Your task to perform on an android device: find photos in the google photos app Image 0: 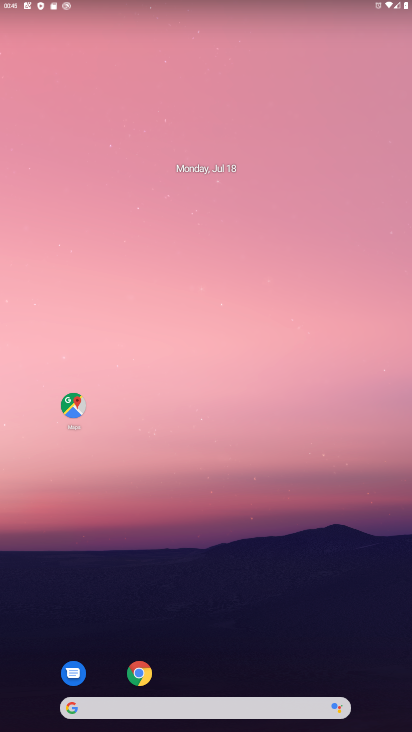
Step 0: drag from (251, 674) to (166, 48)
Your task to perform on an android device: find photos in the google photos app Image 1: 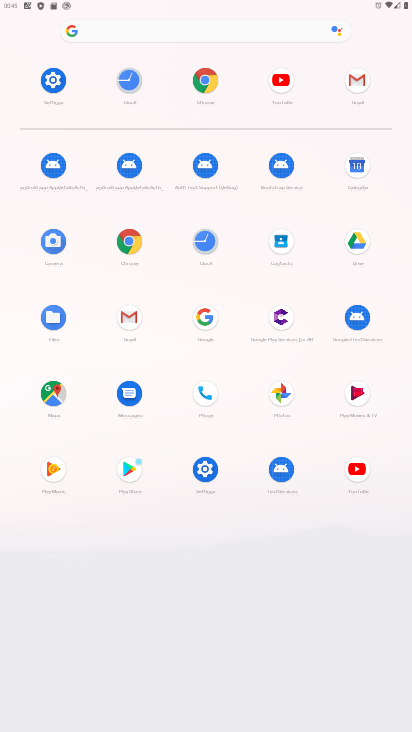
Step 1: click (300, 400)
Your task to perform on an android device: find photos in the google photos app Image 2: 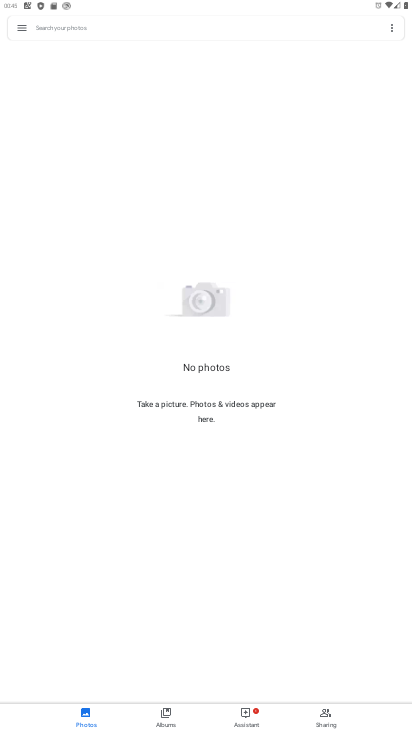
Step 2: click (237, 717)
Your task to perform on an android device: find photos in the google photos app Image 3: 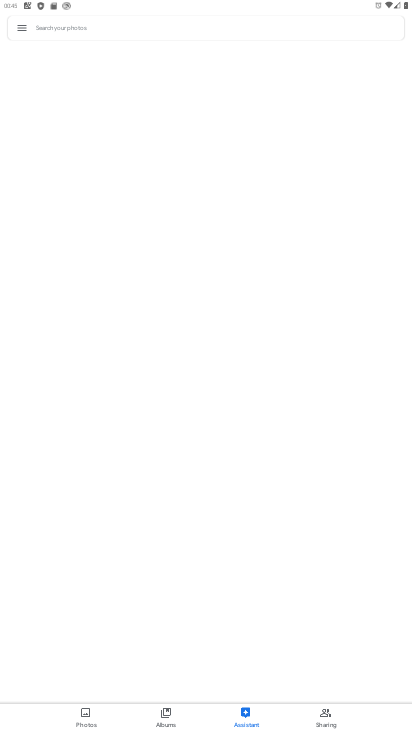
Step 3: task complete